Your task to perform on an android device: turn off location Image 0: 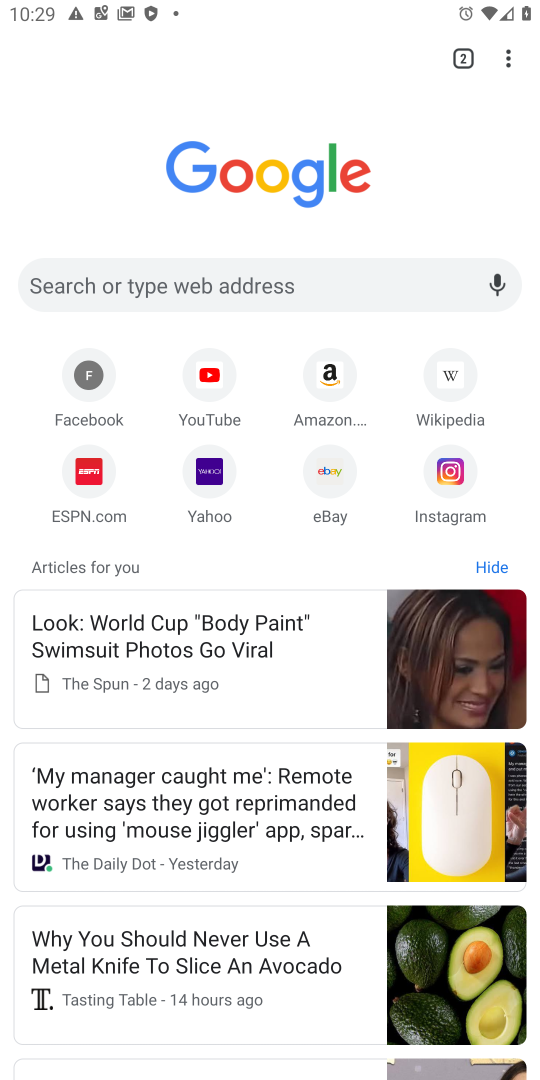
Step 0: press home button
Your task to perform on an android device: turn off location Image 1: 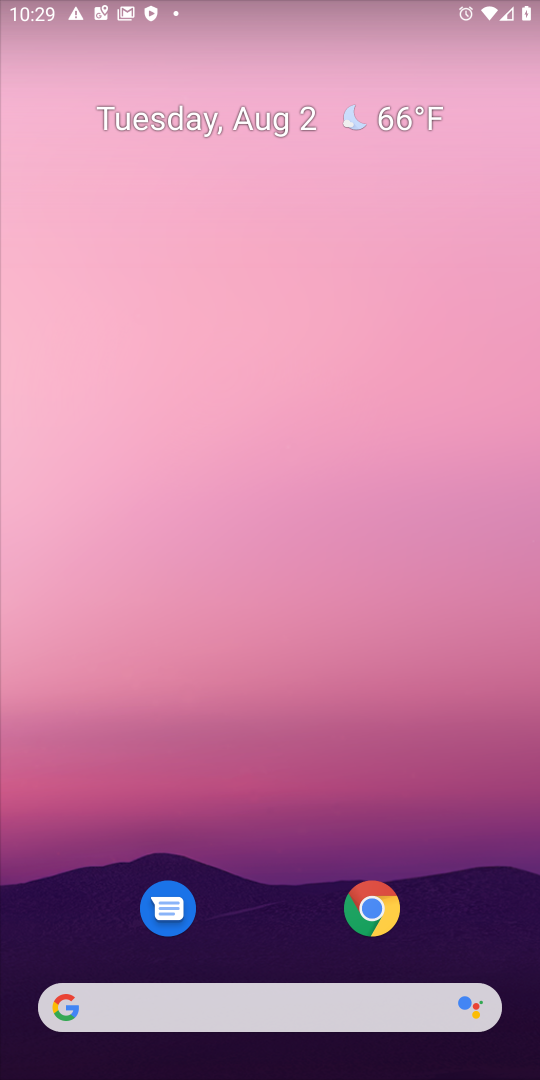
Step 1: drag from (246, 566) to (240, 171)
Your task to perform on an android device: turn off location Image 2: 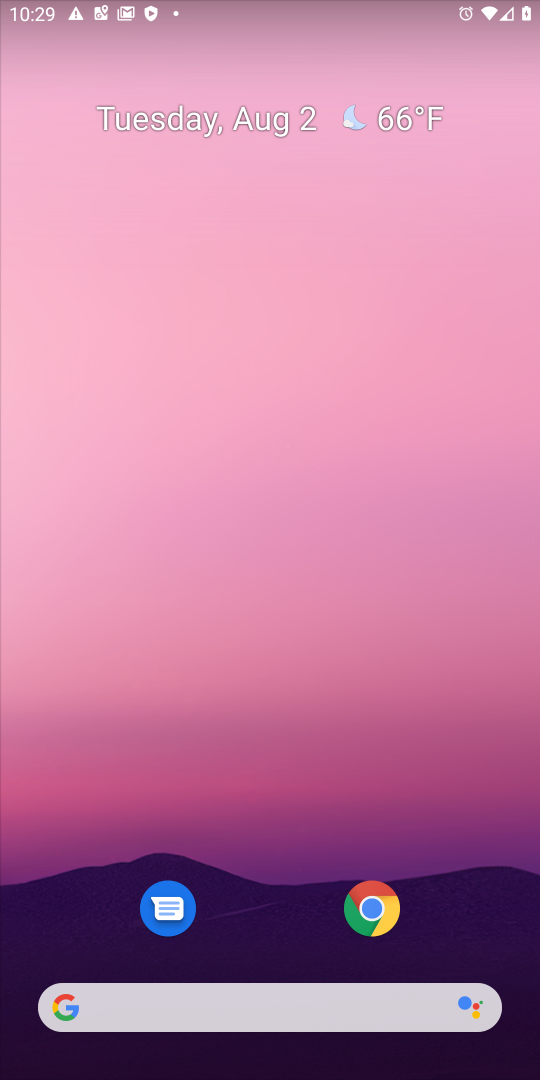
Step 2: drag from (278, 841) to (534, 64)
Your task to perform on an android device: turn off location Image 3: 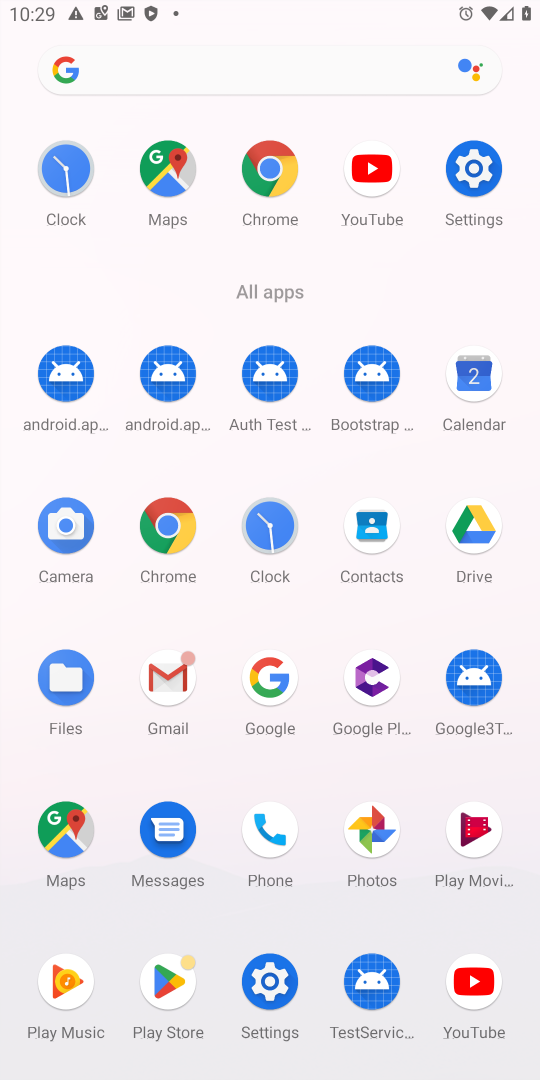
Step 3: click (490, 180)
Your task to perform on an android device: turn off location Image 4: 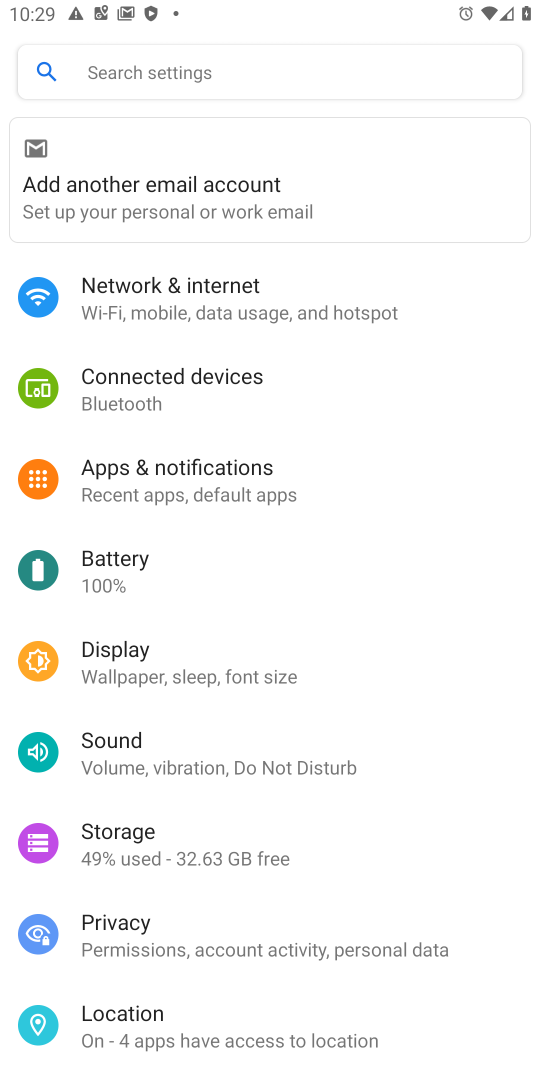
Step 4: click (262, 999)
Your task to perform on an android device: turn off location Image 5: 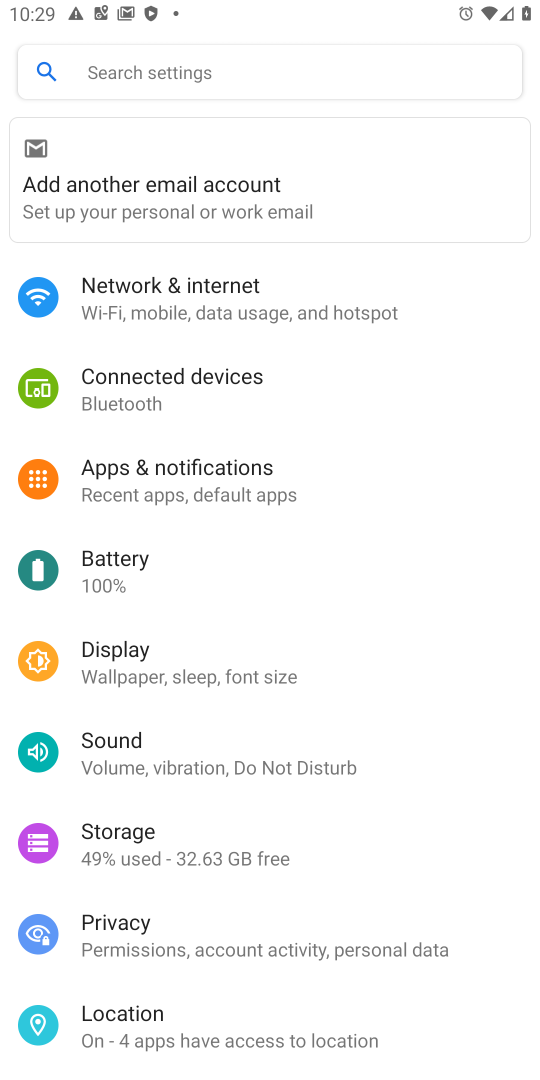
Step 5: click (256, 1039)
Your task to perform on an android device: turn off location Image 6: 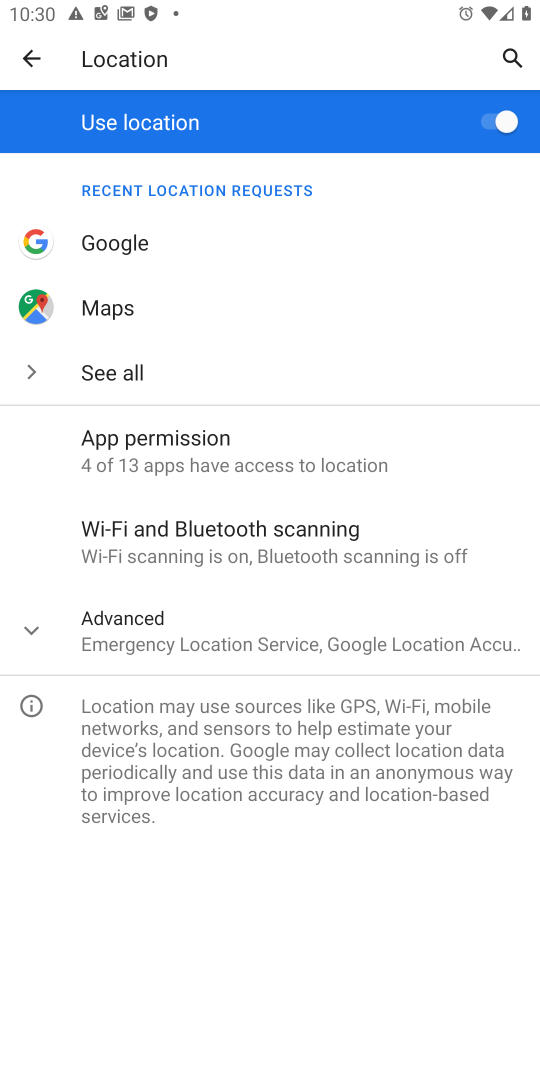
Step 6: click (510, 119)
Your task to perform on an android device: turn off location Image 7: 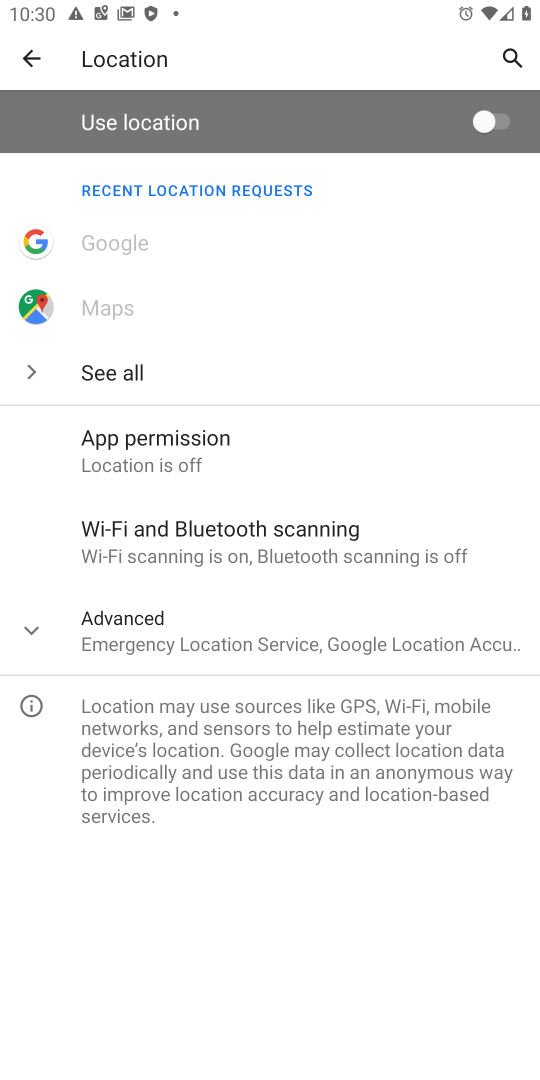
Step 7: task complete